Your task to perform on an android device: Search for floor lamps on article.com Image 0: 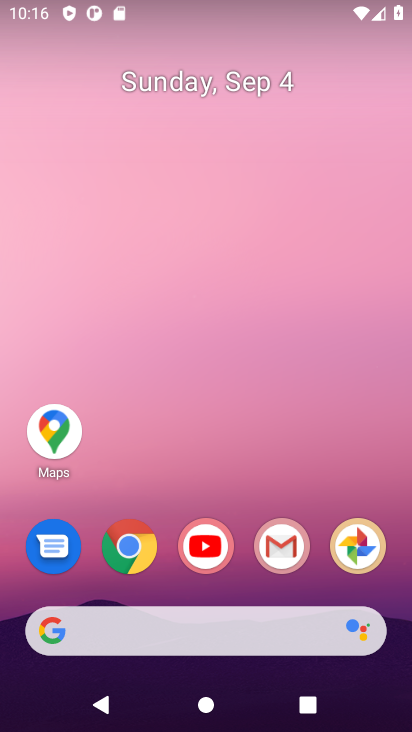
Step 0: click (122, 549)
Your task to perform on an android device: Search for floor lamps on article.com Image 1: 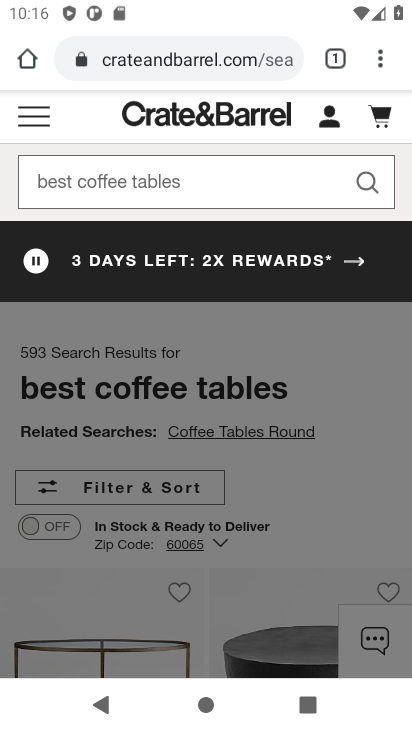
Step 1: click (176, 68)
Your task to perform on an android device: Search for floor lamps on article.com Image 2: 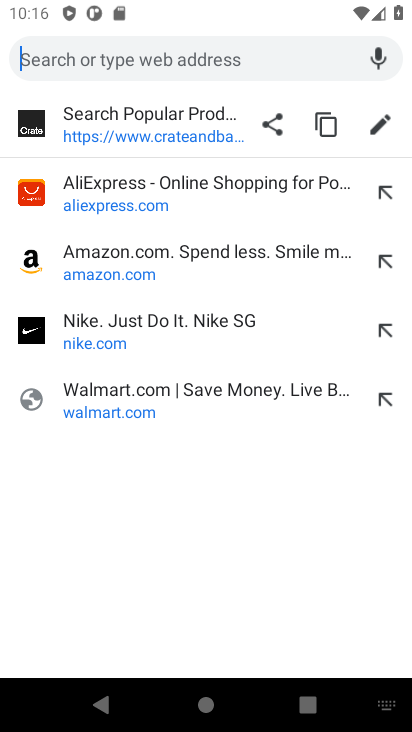
Step 2: type "article.com"
Your task to perform on an android device: Search for floor lamps on article.com Image 3: 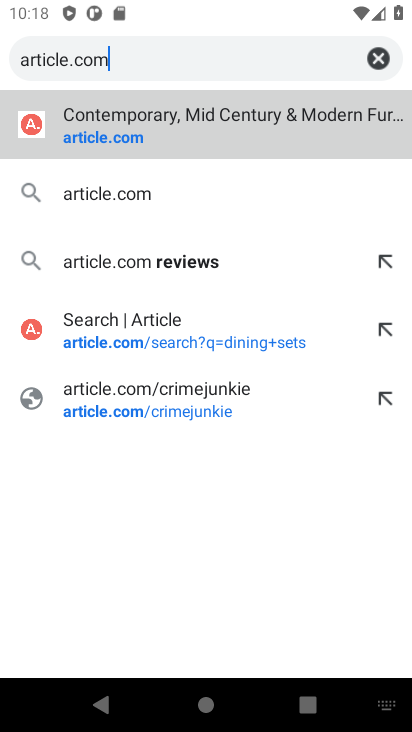
Step 3: click (100, 200)
Your task to perform on an android device: Search for floor lamps on article.com Image 4: 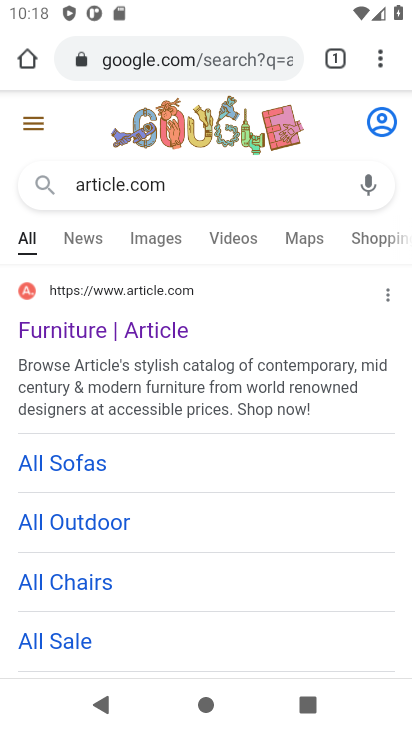
Step 4: click (81, 333)
Your task to perform on an android device: Search for floor lamps on article.com Image 5: 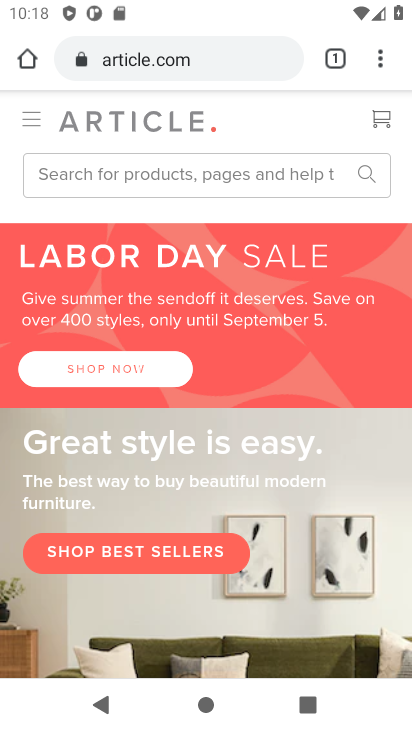
Step 5: click (206, 176)
Your task to perform on an android device: Search for floor lamps on article.com Image 6: 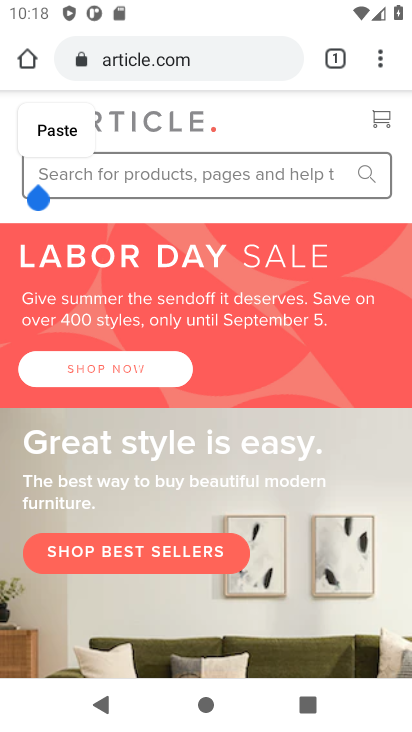
Step 6: type " floor lamps"
Your task to perform on an android device: Search for floor lamps on article.com Image 7: 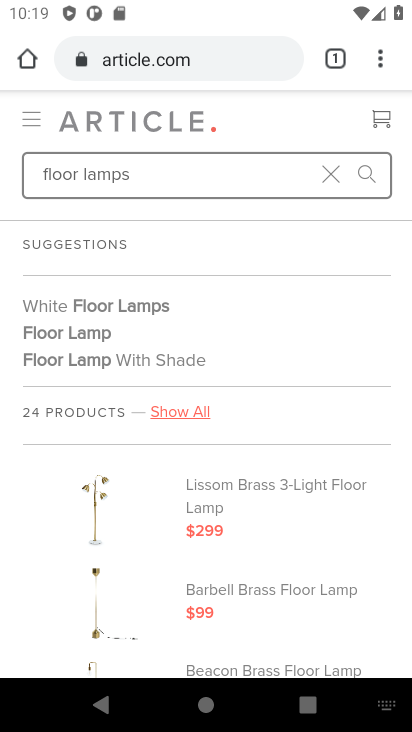
Step 7: task complete